Your task to perform on an android device: open device folders in google photos Image 0: 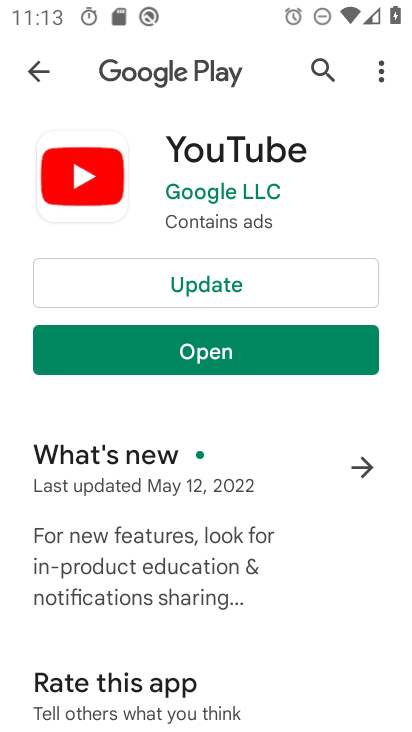
Step 0: press home button
Your task to perform on an android device: open device folders in google photos Image 1: 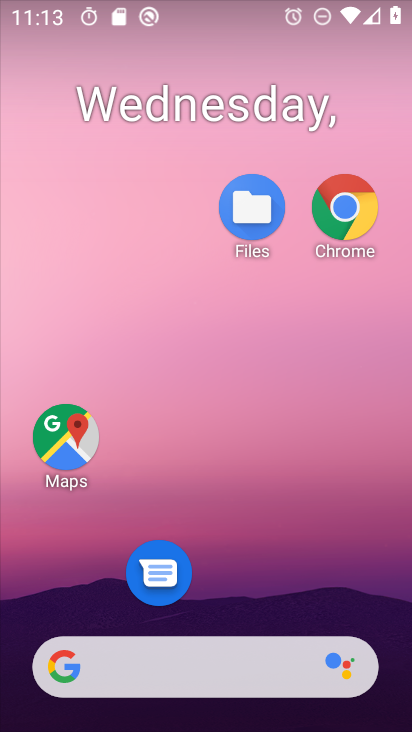
Step 1: drag from (262, 679) to (303, 327)
Your task to perform on an android device: open device folders in google photos Image 2: 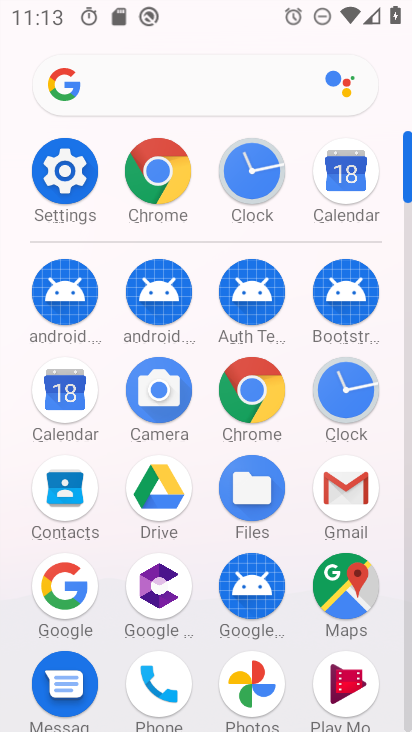
Step 2: drag from (286, 537) to (319, 347)
Your task to perform on an android device: open device folders in google photos Image 3: 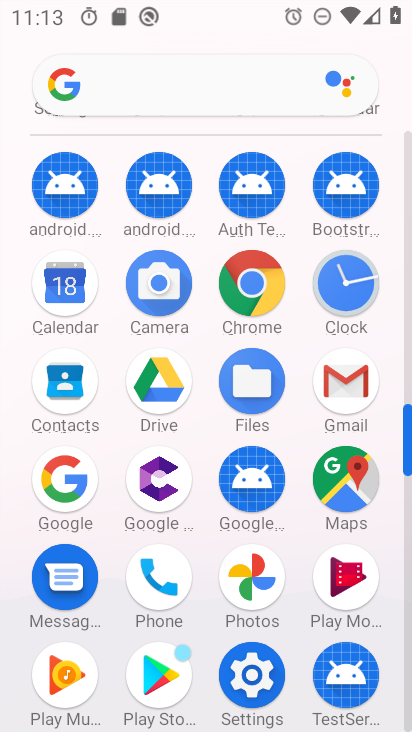
Step 3: click (257, 581)
Your task to perform on an android device: open device folders in google photos Image 4: 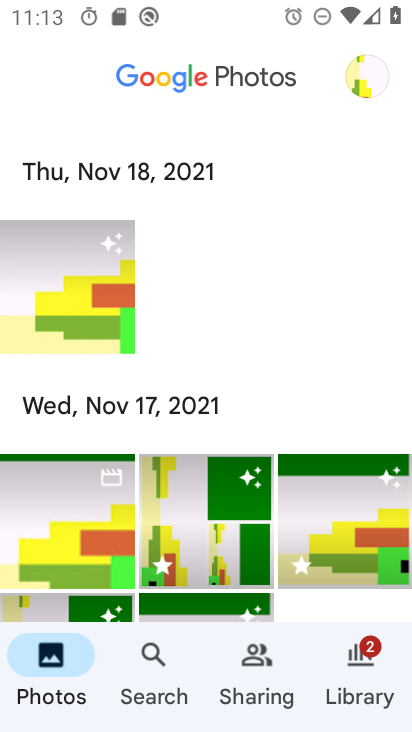
Step 4: click (372, 78)
Your task to perform on an android device: open device folders in google photos Image 5: 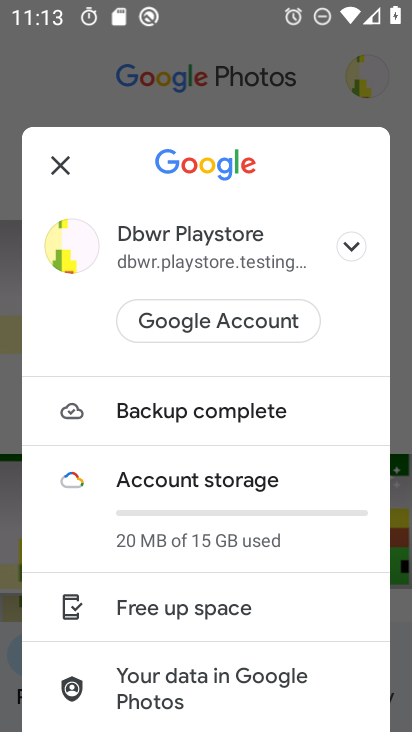
Step 5: task complete